Your task to perform on an android device: What's the weather today? Image 0: 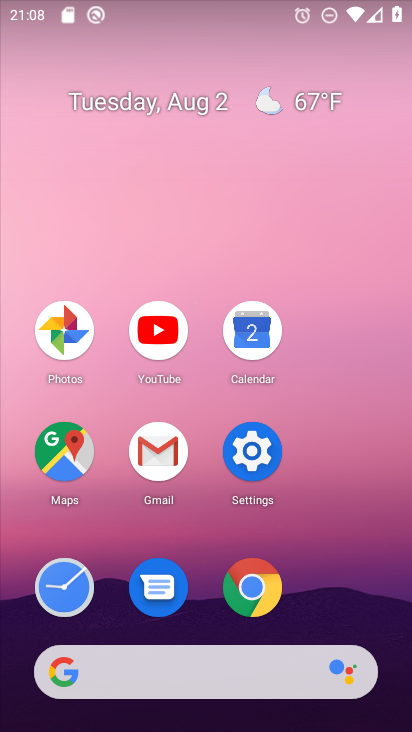
Step 0: click (199, 665)
Your task to perform on an android device: What's the weather today? Image 1: 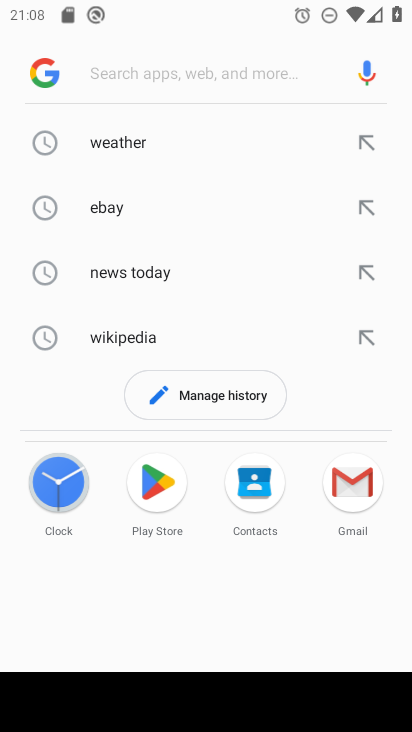
Step 1: click (117, 143)
Your task to perform on an android device: What's the weather today? Image 2: 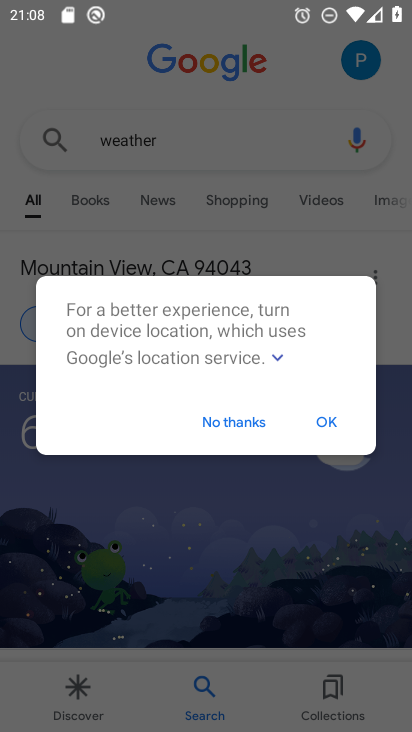
Step 2: click (330, 422)
Your task to perform on an android device: What's the weather today? Image 3: 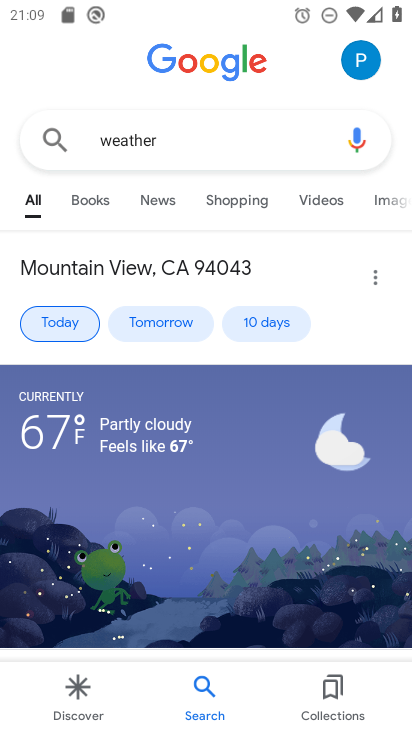
Step 3: task complete